Your task to perform on an android device: check battery use Image 0: 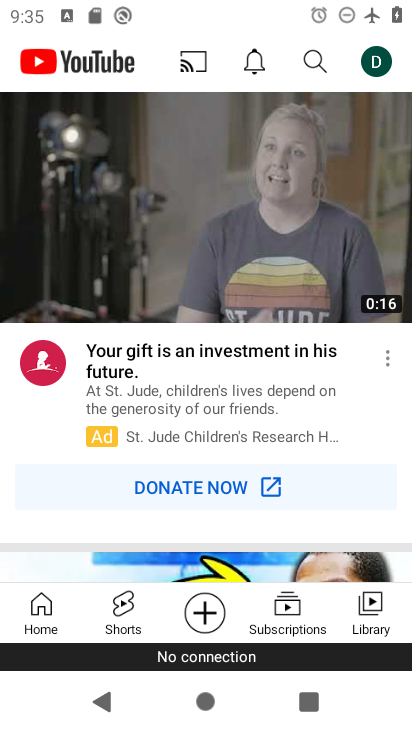
Step 0: press home button
Your task to perform on an android device: check battery use Image 1: 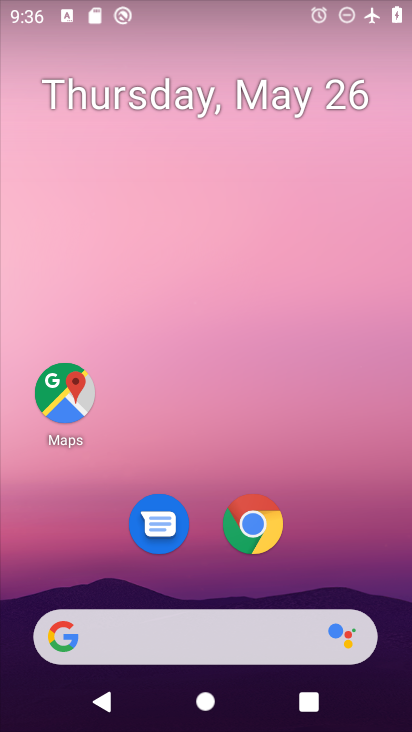
Step 1: drag from (225, 450) to (235, 25)
Your task to perform on an android device: check battery use Image 2: 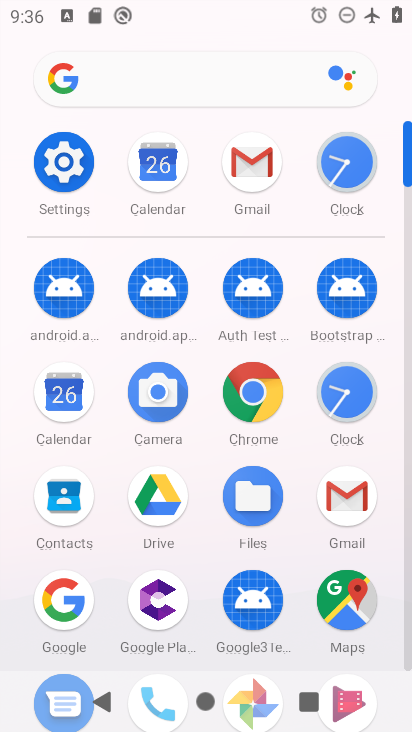
Step 2: click (65, 153)
Your task to perform on an android device: check battery use Image 3: 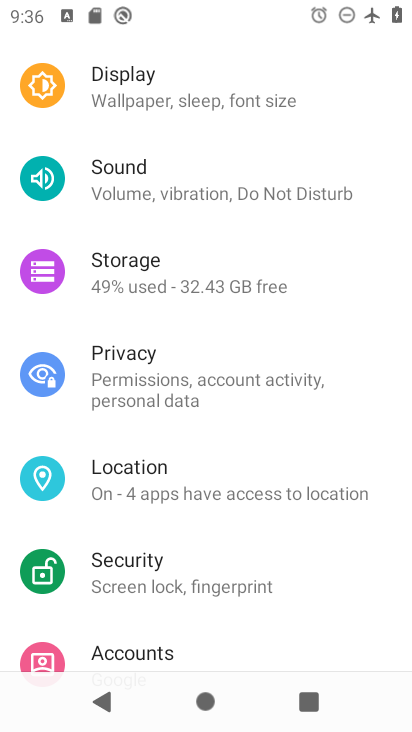
Step 3: drag from (207, 227) to (238, 608)
Your task to perform on an android device: check battery use Image 4: 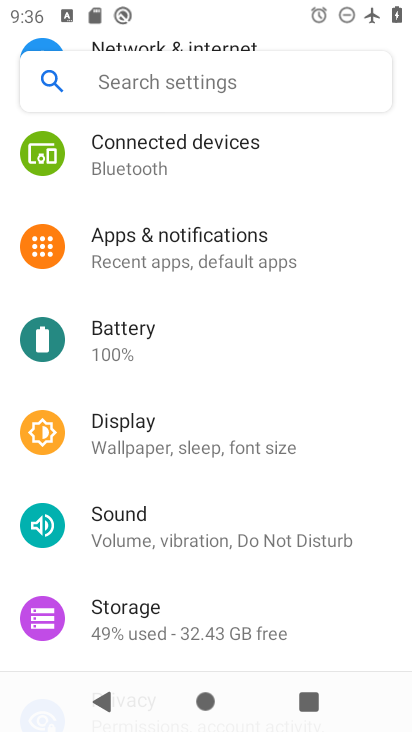
Step 4: click (193, 340)
Your task to perform on an android device: check battery use Image 5: 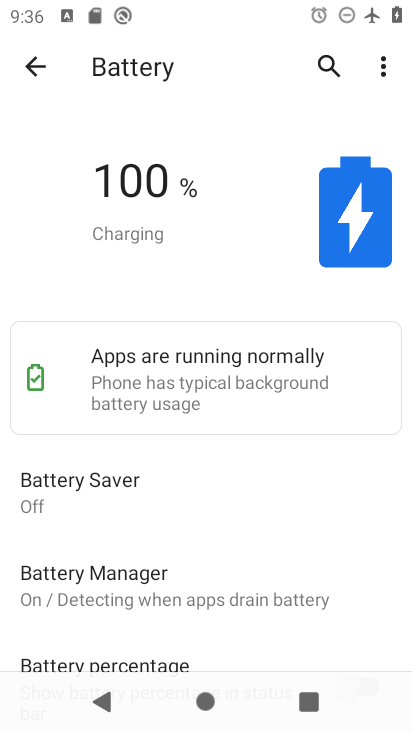
Step 5: click (383, 60)
Your task to perform on an android device: check battery use Image 6: 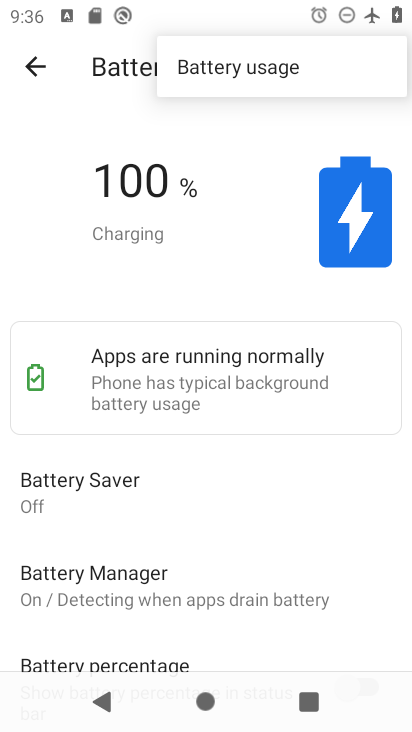
Step 6: click (284, 54)
Your task to perform on an android device: check battery use Image 7: 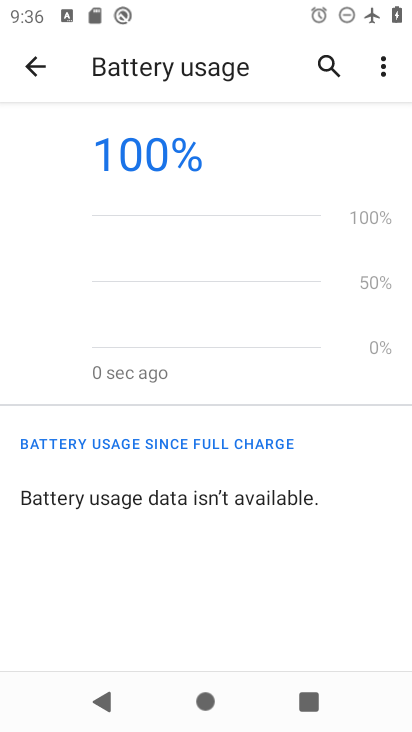
Step 7: task complete